Your task to perform on an android device: find which apps use the phone's location Image 0: 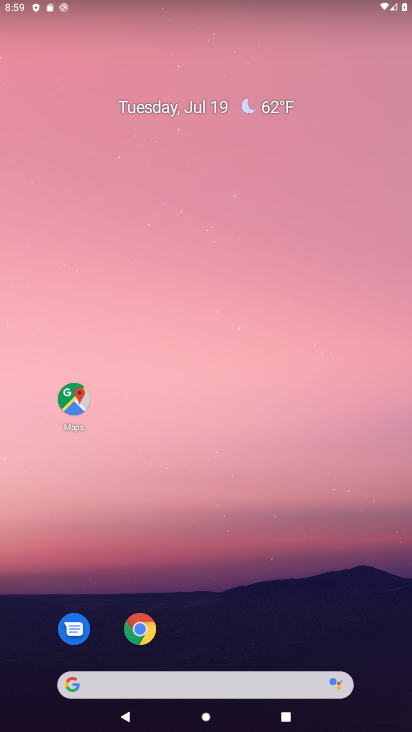
Step 0: press home button
Your task to perform on an android device: find which apps use the phone's location Image 1: 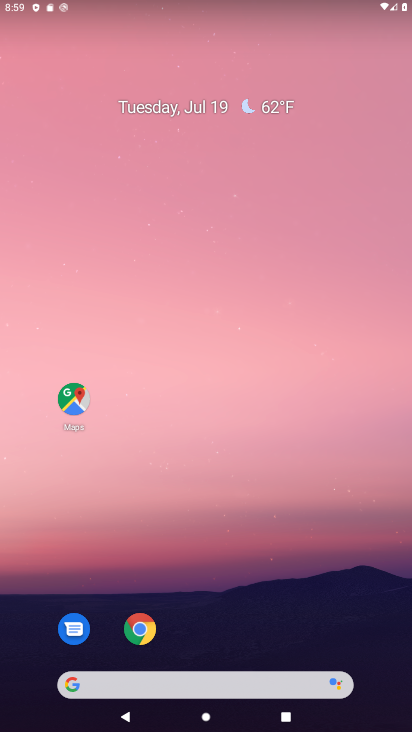
Step 1: drag from (211, 645) to (220, 9)
Your task to perform on an android device: find which apps use the phone's location Image 2: 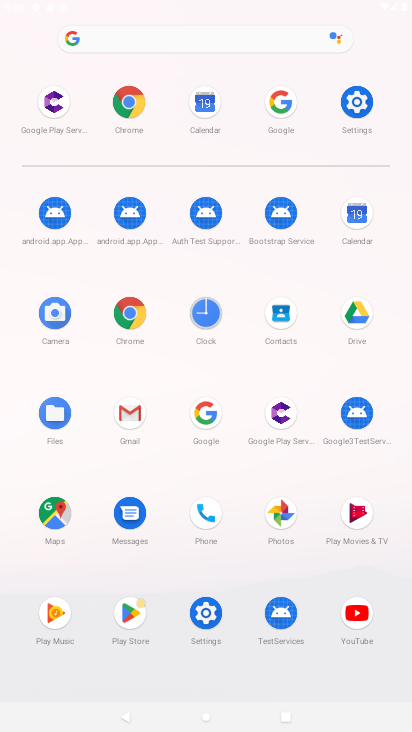
Step 2: click (357, 97)
Your task to perform on an android device: find which apps use the phone's location Image 3: 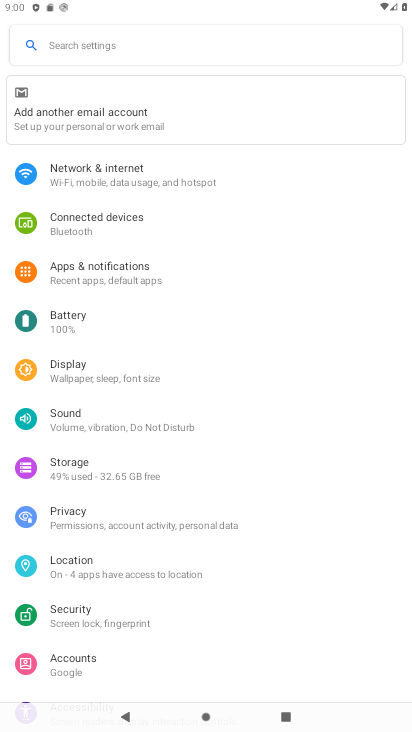
Step 3: click (91, 562)
Your task to perform on an android device: find which apps use the phone's location Image 4: 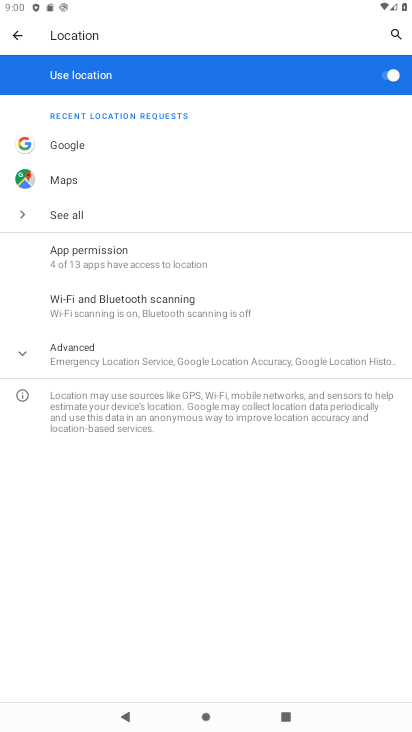
Step 4: click (94, 251)
Your task to perform on an android device: find which apps use the phone's location Image 5: 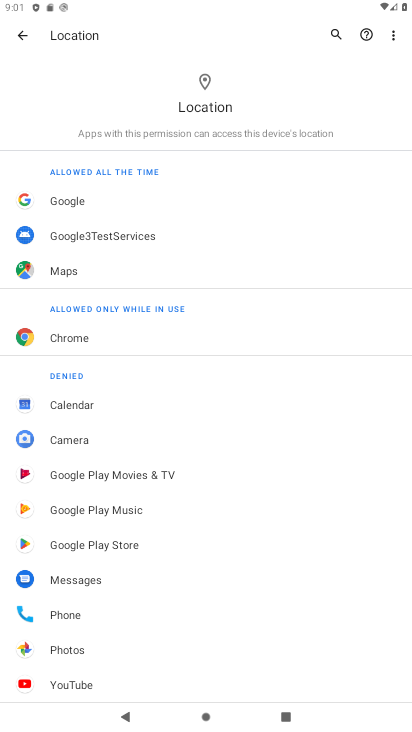
Step 5: task complete